Your task to perform on an android device: Open Wikipedia Image 0: 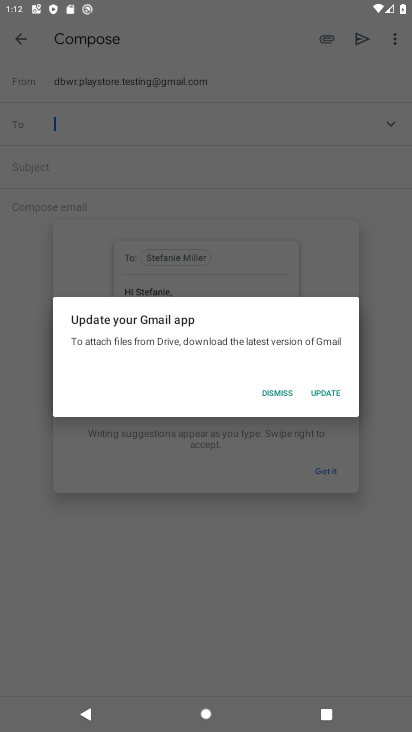
Step 0: press home button
Your task to perform on an android device: Open Wikipedia Image 1: 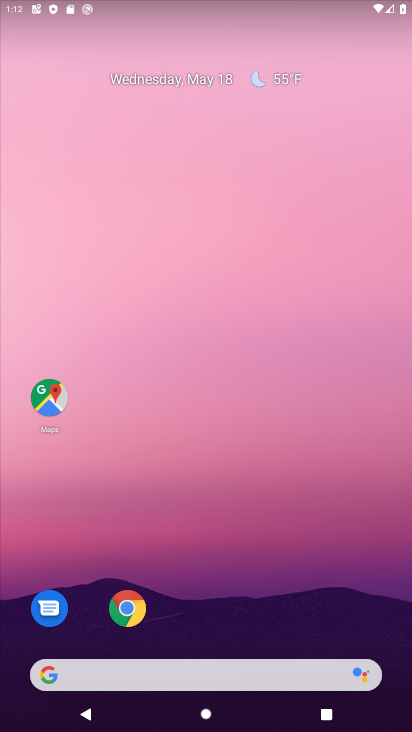
Step 1: click (120, 604)
Your task to perform on an android device: Open Wikipedia Image 2: 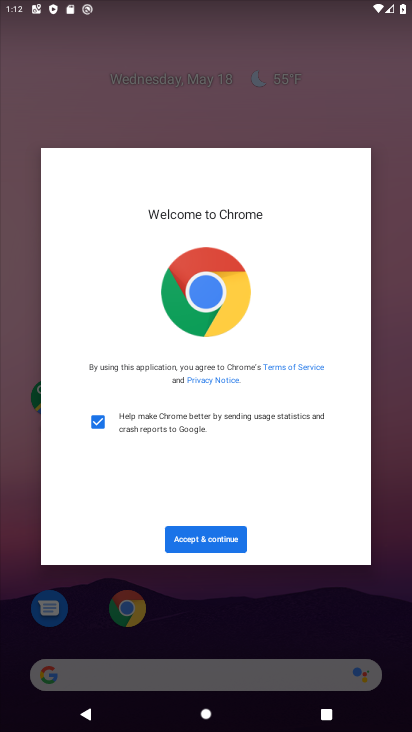
Step 2: click (215, 529)
Your task to perform on an android device: Open Wikipedia Image 3: 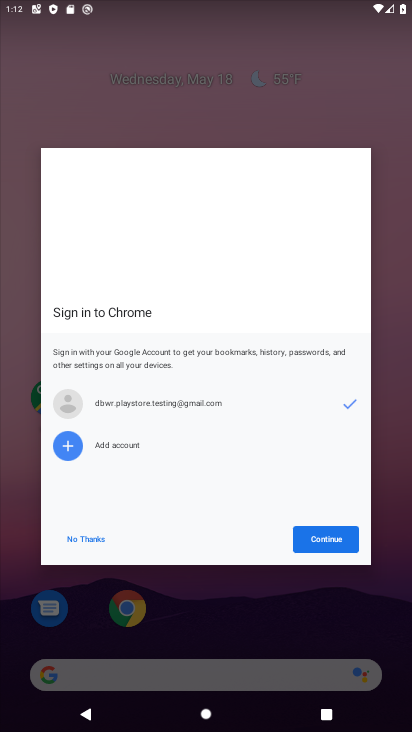
Step 3: click (333, 535)
Your task to perform on an android device: Open Wikipedia Image 4: 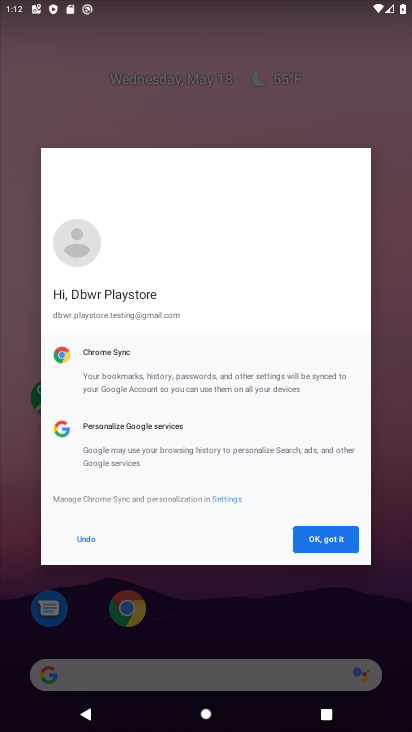
Step 4: click (333, 535)
Your task to perform on an android device: Open Wikipedia Image 5: 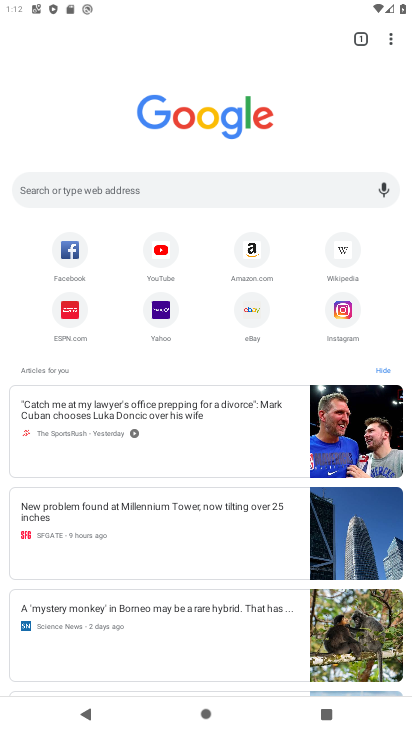
Step 5: click (337, 251)
Your task to perform on an android device: Open Wikipedia Image 6: 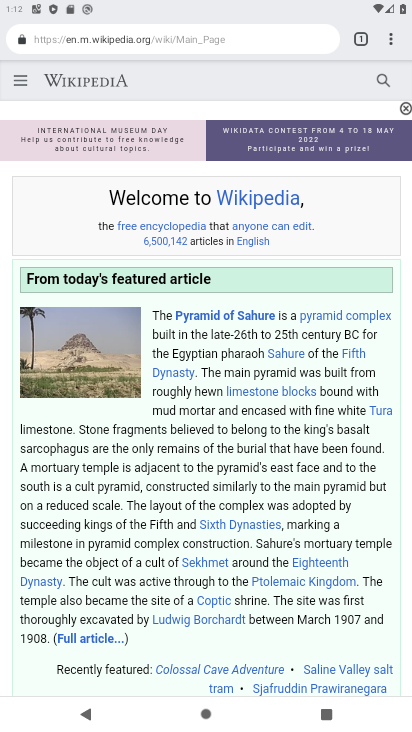
Step 6: task complete